Your task to perform on an android device: set an alarm Image 0: 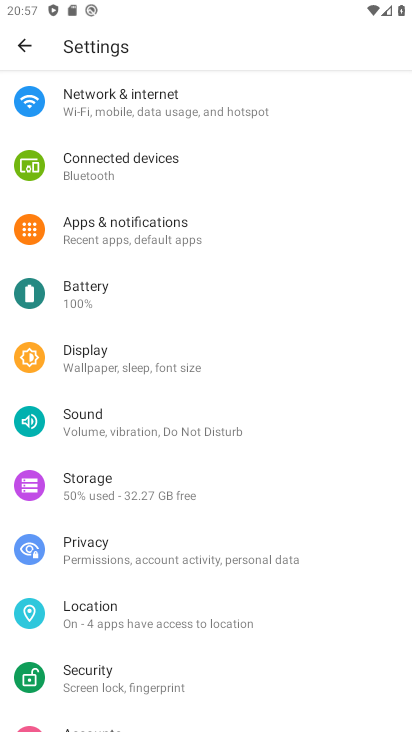
Step 0: press home button
Your task to perform on an android device: set an alarm Image 1: 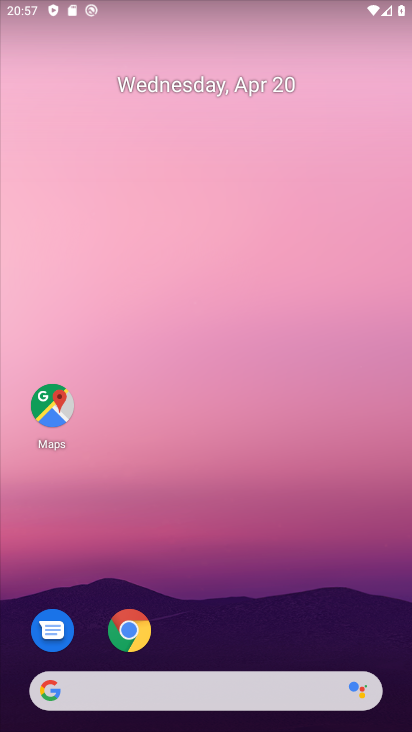
Step 1: drag from (217, 591) to (206, 163)
Your task to perform on an android device: set an alarm Image 2: 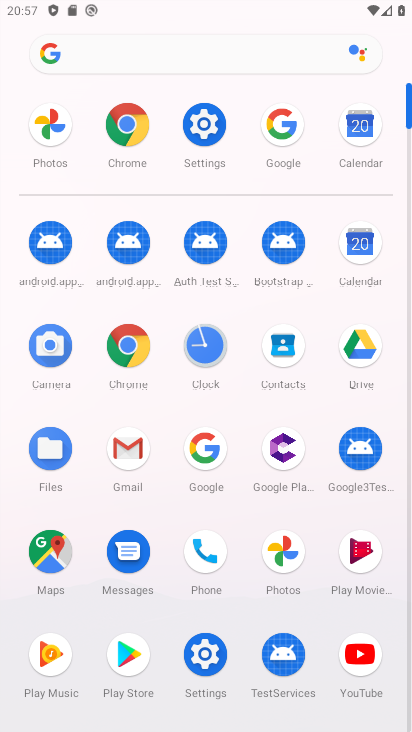
Step 2: click (204, 348)
Your task to perform on an android device: set an alarm Image 3: 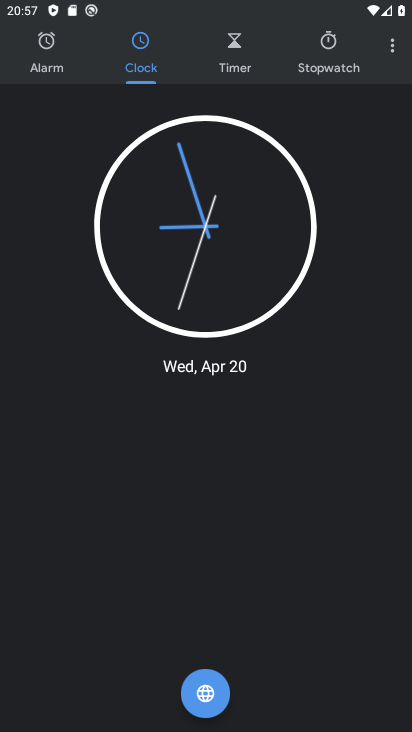
Step 3: click (49, 49)
Your task to perform on an android device: set an alarm Image 4: 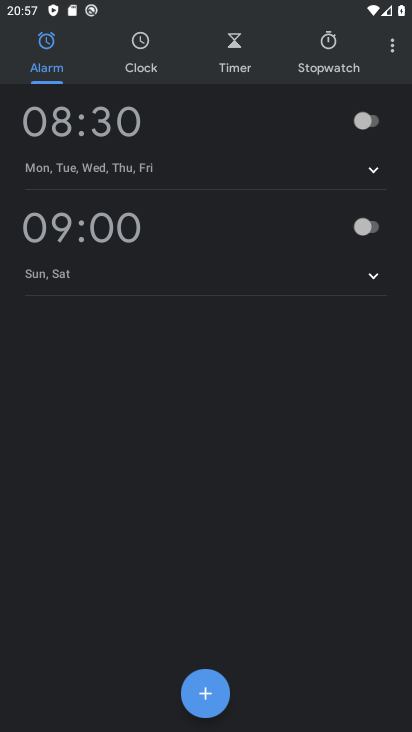
Step 4: click (378, 118)
Your task to perform on an android device: set an alarm Image 5: 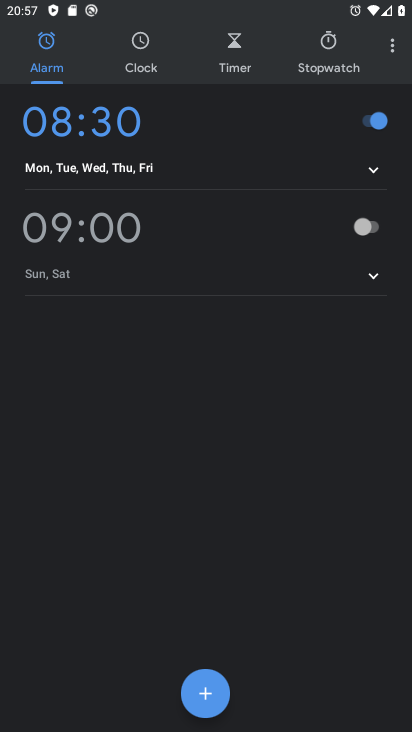
Step 5: task complete